Your task to perform on an android device: Open accessibility settings Image 0: 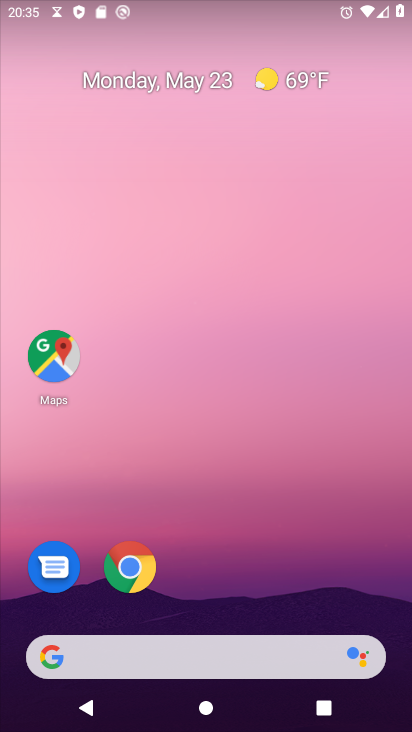
Step 0: drag from (219, 593) to (268, 1)
Your task to perform on an android device: Open accessibility settings Image 1: 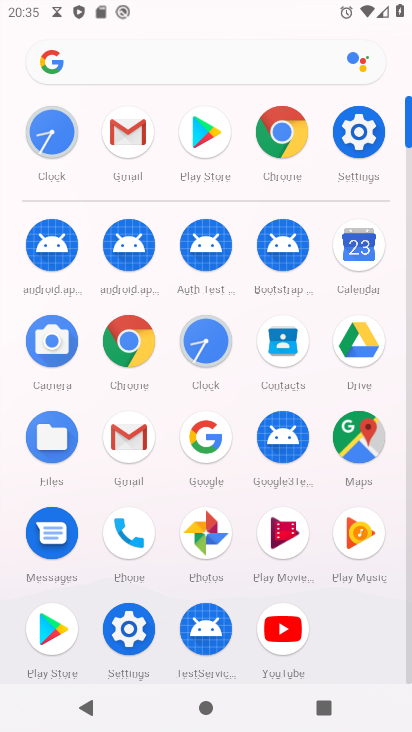
Step 1: click (132, 624)
Your task to perform on an android device: Open accessibility settings Image 2: 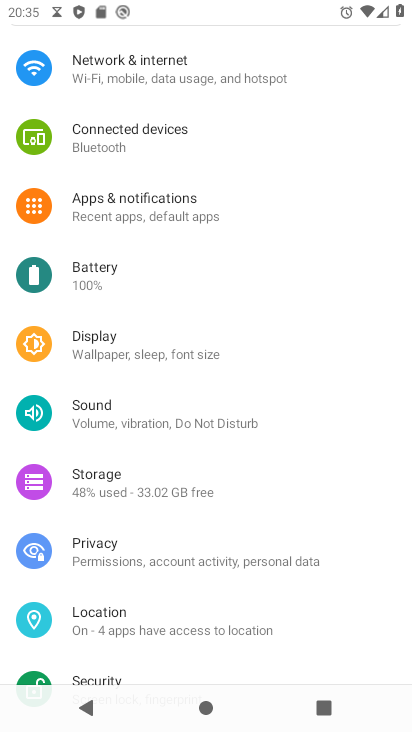
Step 2: drag from (201, 553) to (271, 160)
Your task to perform on an android device: Open accessibility settings Image 3: 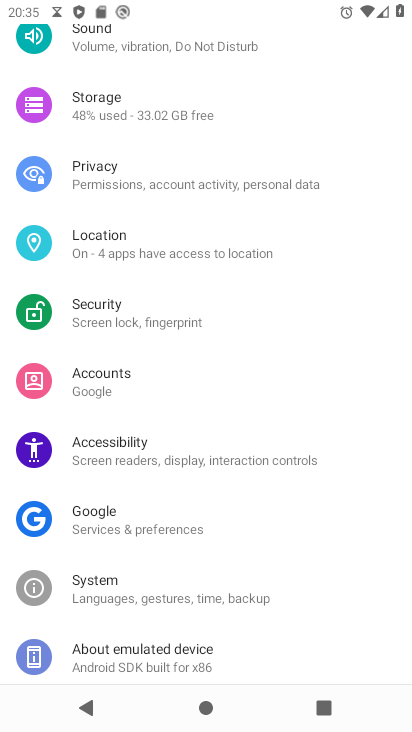
Step 3: drag from (148, 588) to (190, 177)
Your task to perform on an android device: Open accessibility settings Image 4: 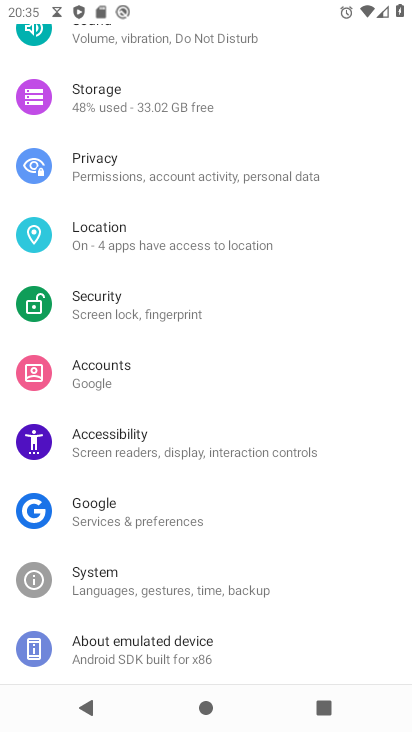
Step 4: click (120, 435)
Your task to perform on an android device: Open accessibility settings Image 5: 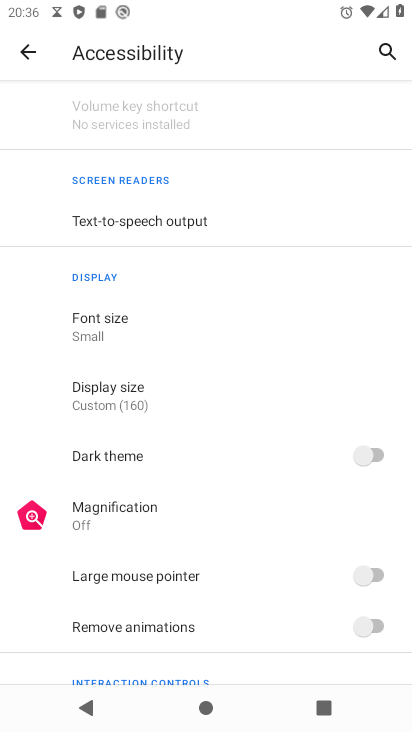
Step 5: task complete